Your task to perform on an android device: Open Google Image 0: 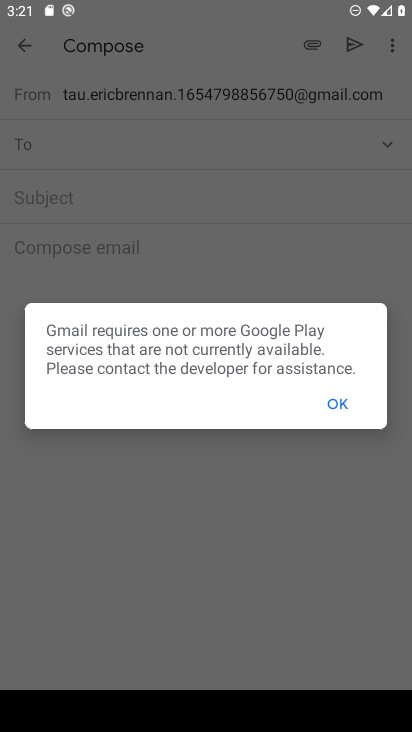
Step 0: press home button
Your task to perform on an android device: Open Google Image 1: 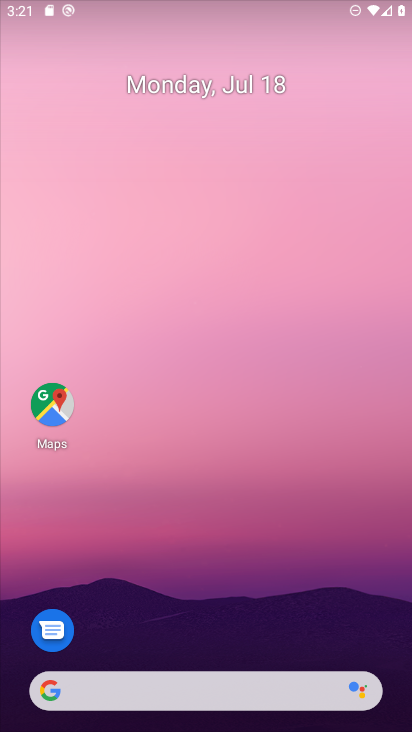
Step 1: drag from (322, 594) to (315, 51)
Your task to perform on an android device: Open Google Image 2: 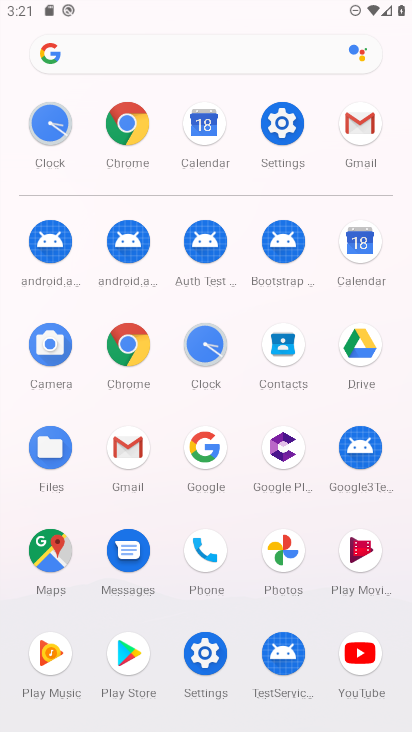
Step 2: click (135, 346)
Your task to perform on an android device: Open Google Image 3: 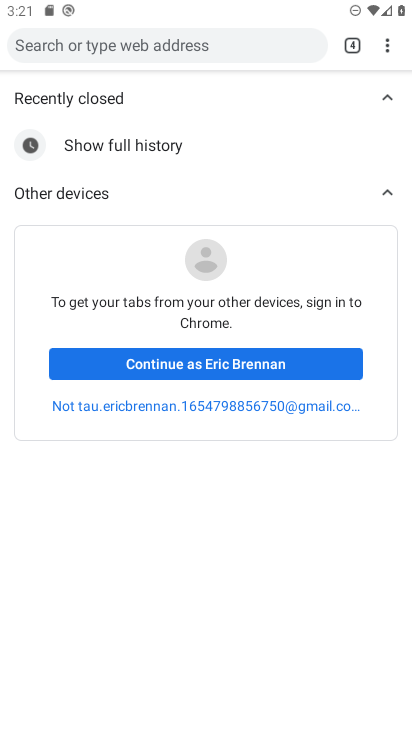
Step 3: task complete